Your task to perform on an android device: check storage Image 0: 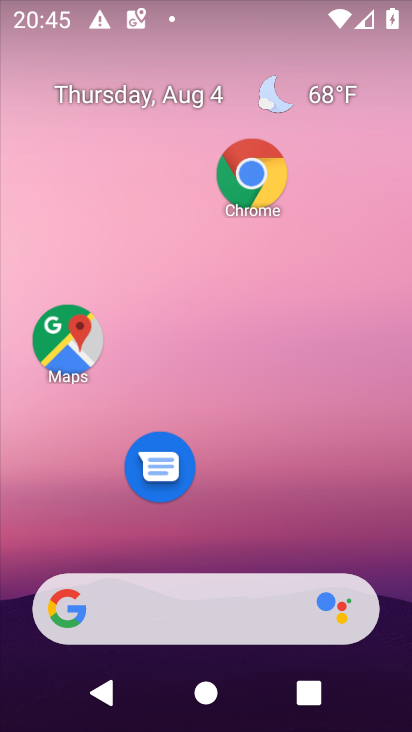
Step 0: drag from (310, 511) to (104, 730)
Your task to perform on an android device: check storage Image 1: 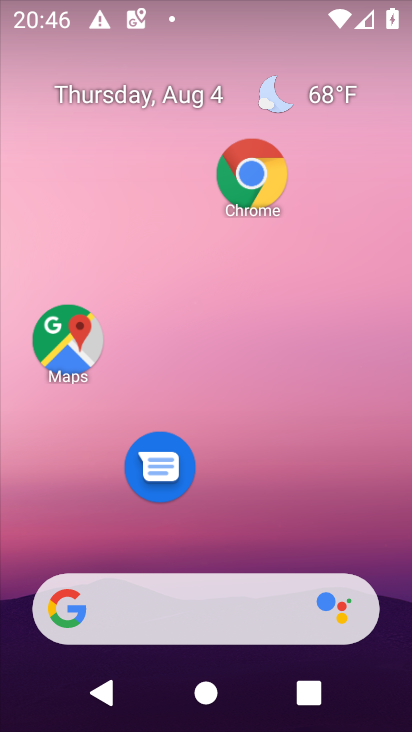
Step 1: drag from (390, 628) to (161, 63)
Your task to perform on an android device: check storage Image 2: 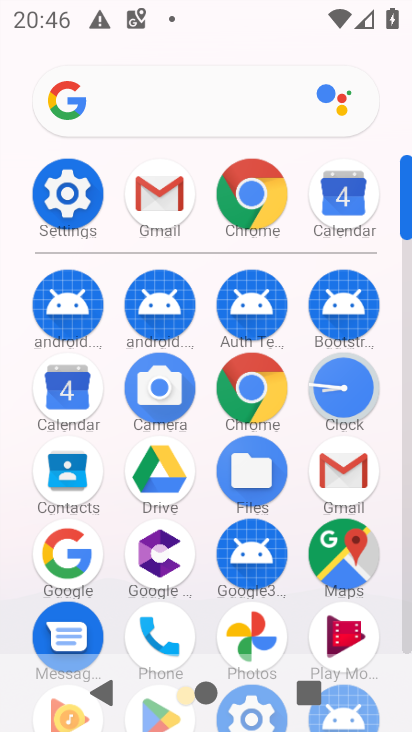
Step 2: click (58, 214)
Your task to perform on an android device: check storage Image 3: 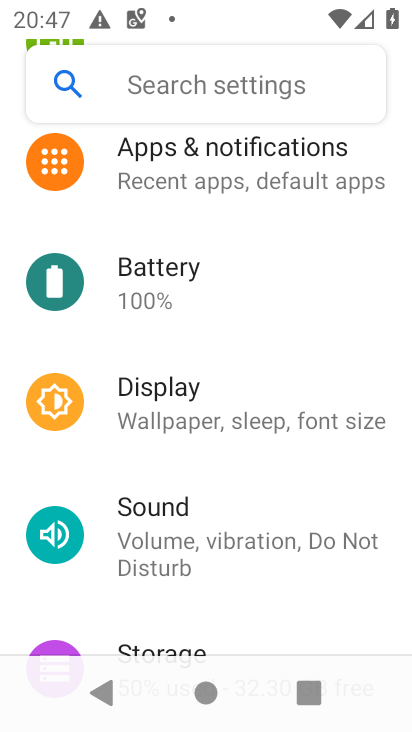
Step 3: click (173, 509)
Your task to perform on an android device: check storage Image 4: 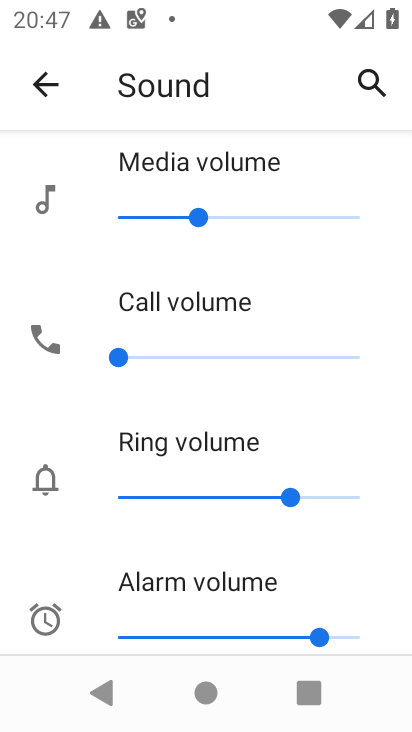
Step 4: task complete